Your task to perform on an android device: Do I have any events tomorrow? Image 0: 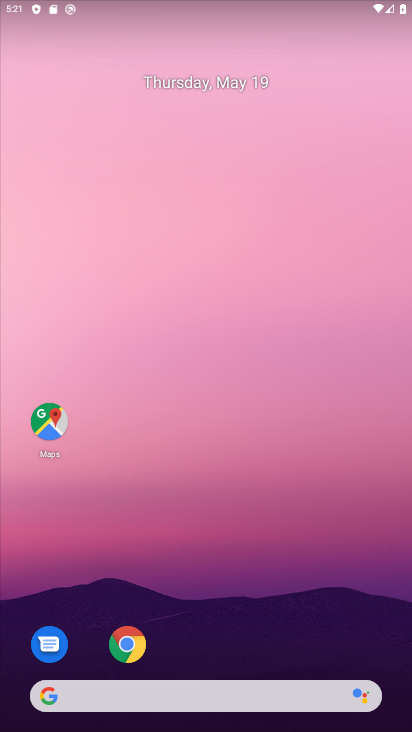
Step 0: drag from (321, 682) to (204, 119)
Your task to perform on an android device: Do I have any events tomorrow? Image 1: 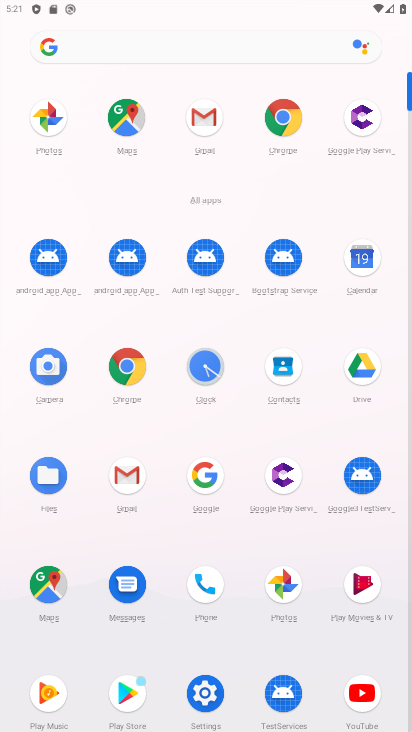
Step 1: click (356, 253)
Your task to perform on an android device: Do I have any events tomorrow? Image 2: 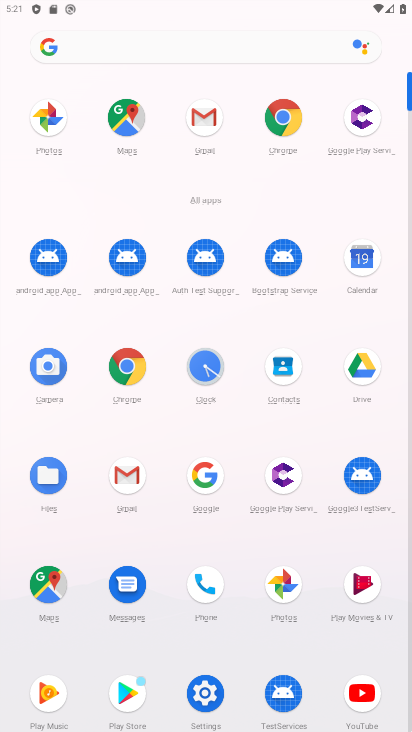
Step 2: click (359, 252)
Your task to perform on an android device: Do I have any events tomorrow? Image 3: 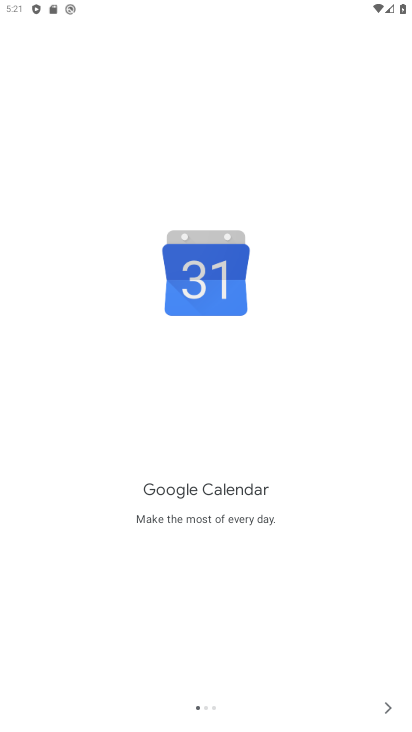
Step 3: click (380, 711)
Your task to perform on an android device: Do I have any events tomorrow? Image 4: 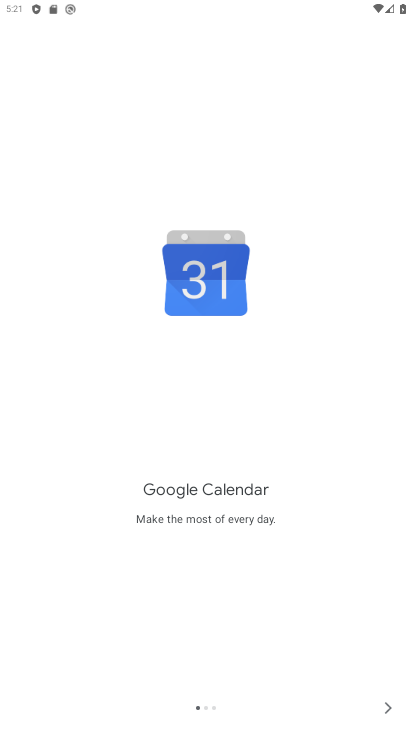
Step 4: click (384, 711)
Your task to perform on an android device: Do I have any events tomorrow? Image 5: 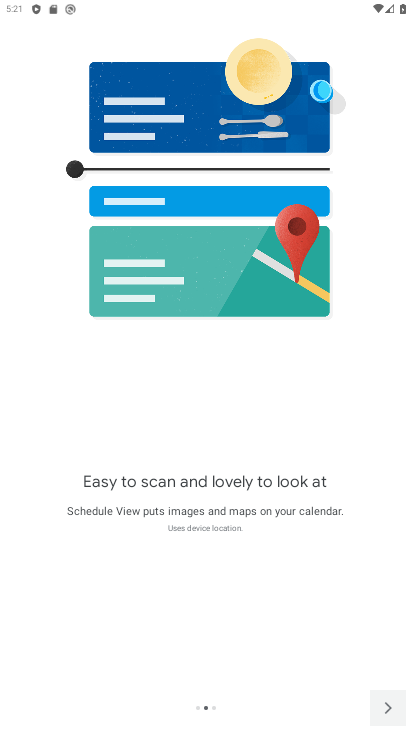
Step 5: click (390, 710)
Your task to perform on an android device: Do I have any events tomorrow? Image 6: 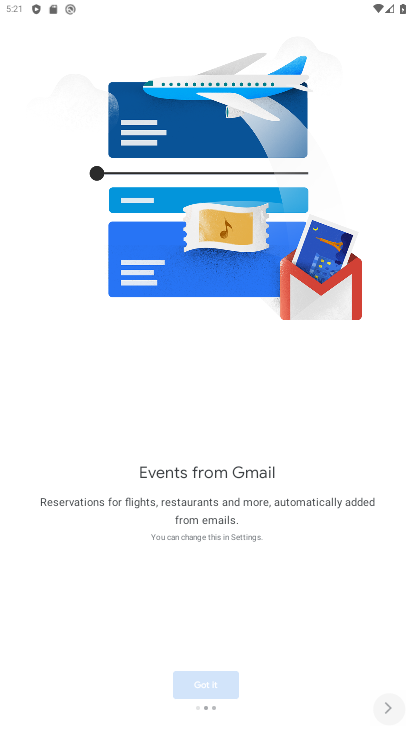
Step 6: click (390, 710)
Your task to perform on an android device: Do I have any events tomorrow? Image 7: 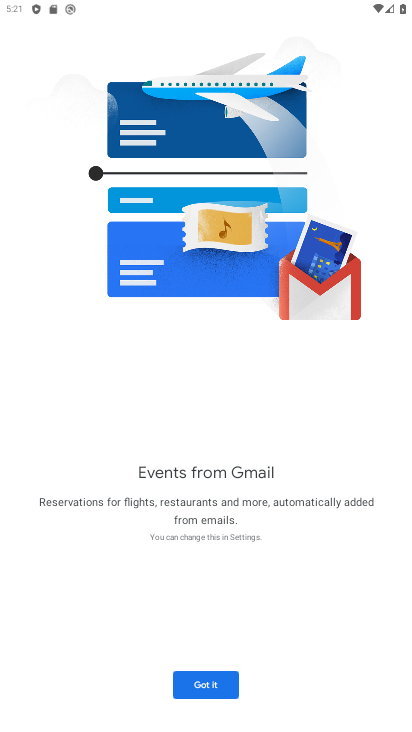
Step 7: click (391, 694)
Your task to perform on an android device: Do I have any events tomorrow? Image 8: 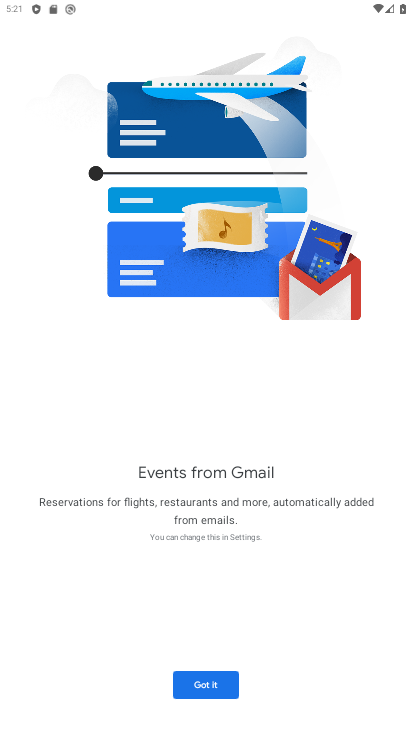
Step 8: click (392, 693)
Your task to perform on an android device: Do I have any events tomorrow? Image 9: 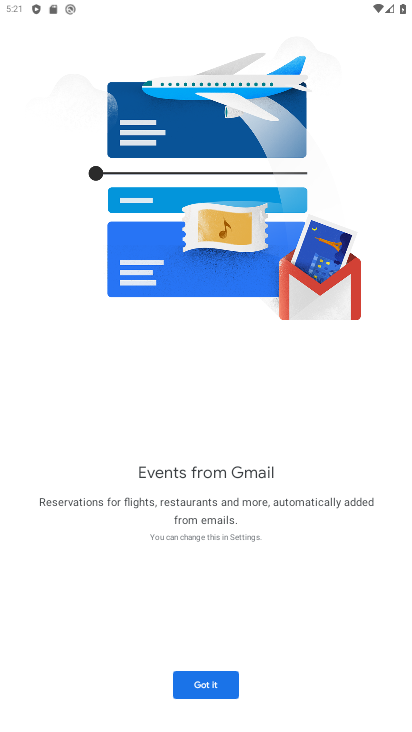
Step 9: click (227, 686)
Your task to perform on an android device: Do I have any events tomorrow? Image 10: 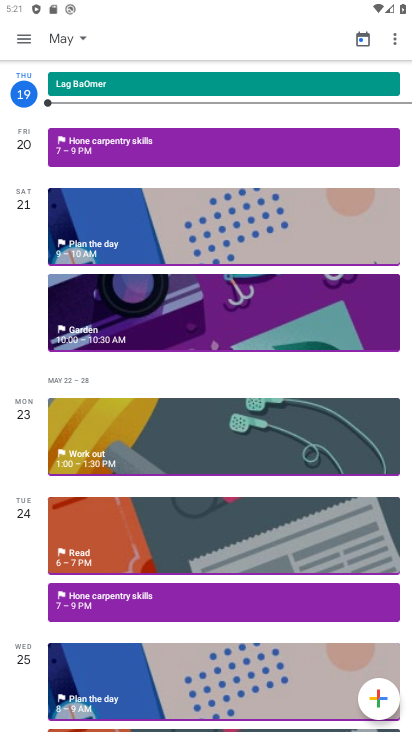
Step 10: drag from (160, 177) to (231, 451)
Your task to perform on an android device: Do I have any events tomorrow? Image 11: 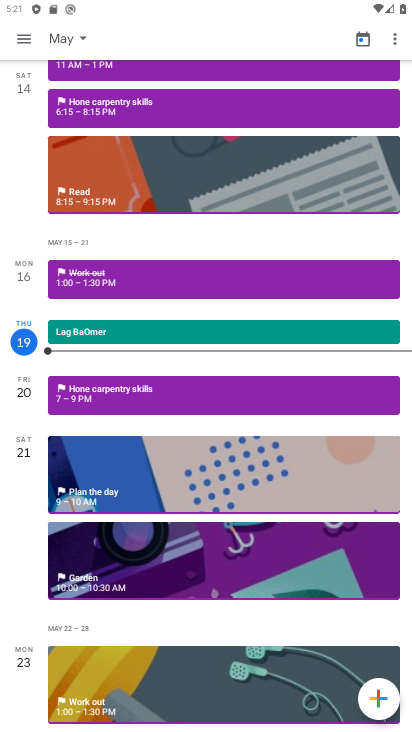
Step 11: drag from (98, 133) to (235, 622)
Your task to perform on an android device: Do I have any events tomorrow? Image 12: 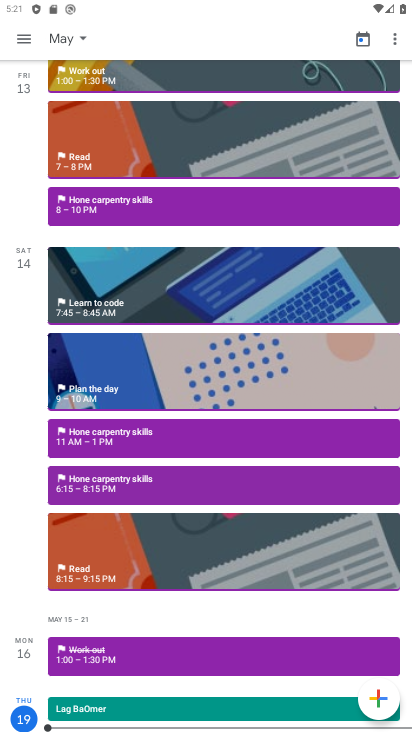
Step 12: drag from (87, 241) to (173, 605)
Your task to perform on an android device: Do I have any events tomorrow? Image 13: 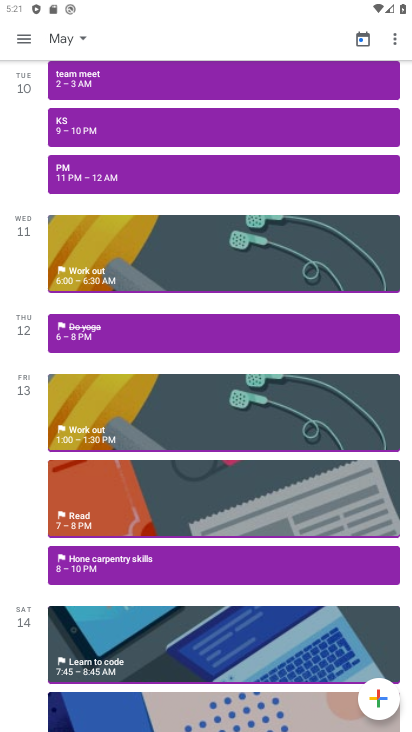
Step 13: click (79, 43)
Your task to perform on an android device: Do I have any events tomorrow? Image 14: 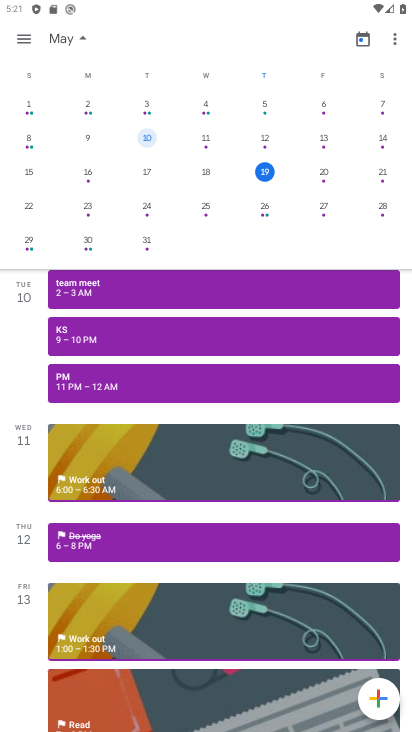
Step 14: click (321, 169)
Your task to perform on an android device: Do I have any events tomorrow? Image 15: 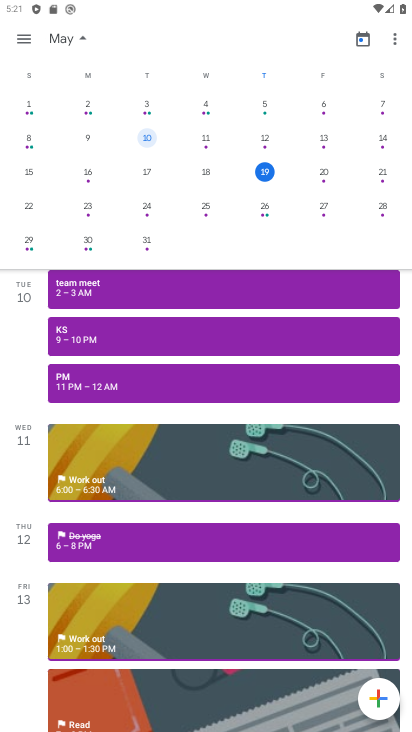
Step 15: click (322, 169)
Your task to perform on an android device: Do I have any events tomorrow? Image 16: 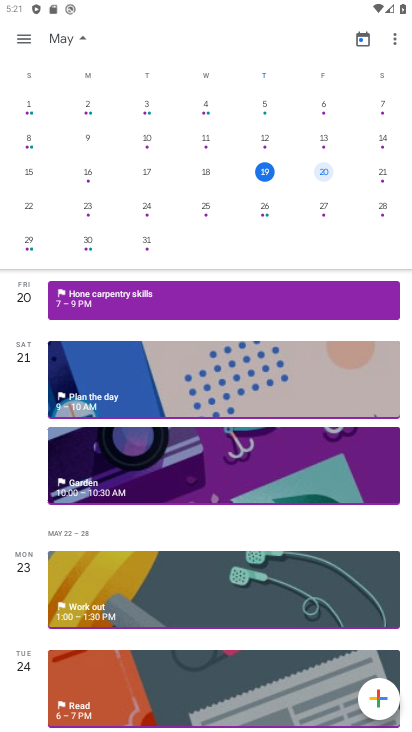
Step 16: click (324, 168)
Your task to perform on an android device: Do I have any events tomorrow? Image 17: 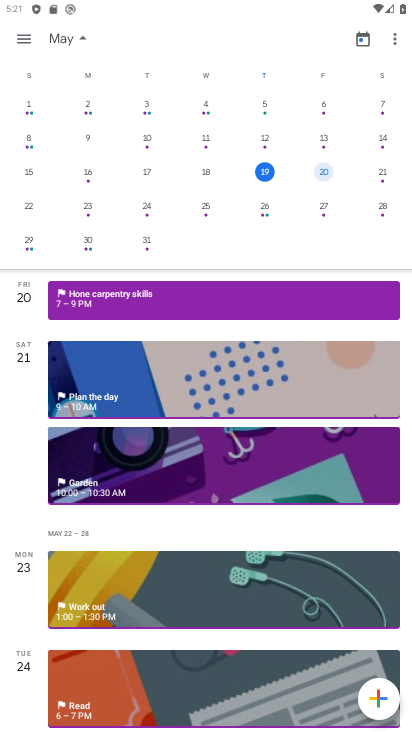
Step 17: click (216, 312)
Your task to perform on an android device: Do I have any events tomorrow? Image 18: 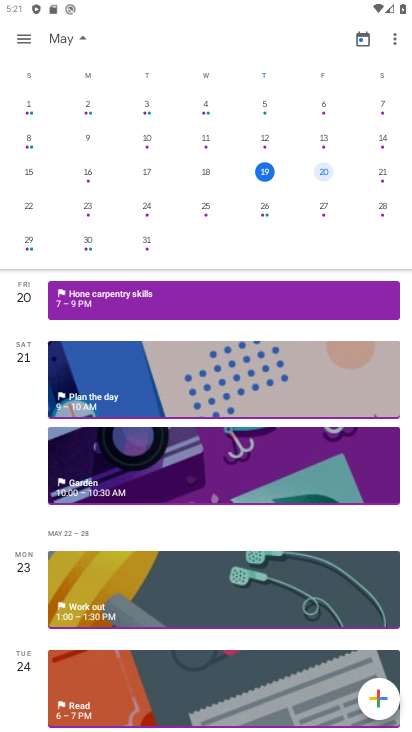
Step 18: click (216, 312)
Your task to perform on an android device: Do I have any events tomorrow? Image 19: 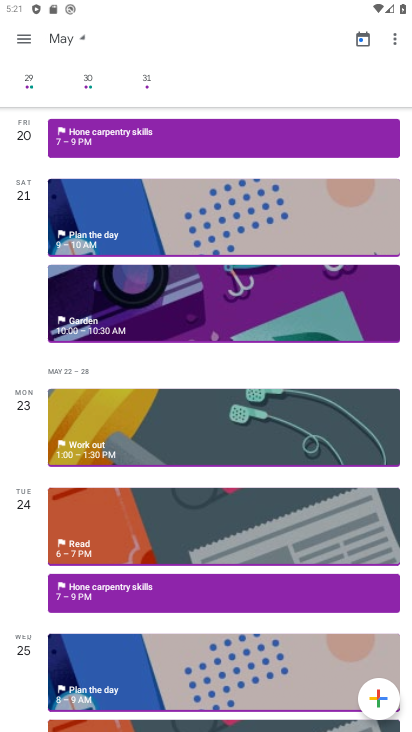
Step 19: click (216, 312)
Your task to perform on an android device: Do I have any events tomorrow? Image 20: 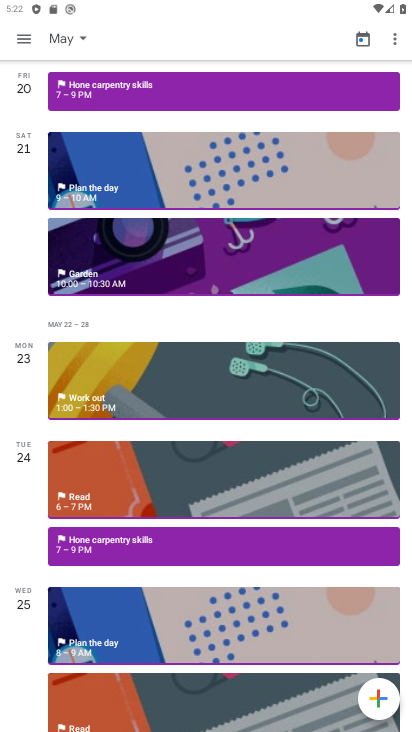
Step 20: task complete